Your task to perform on an android device: turn notification dots on Image 0: 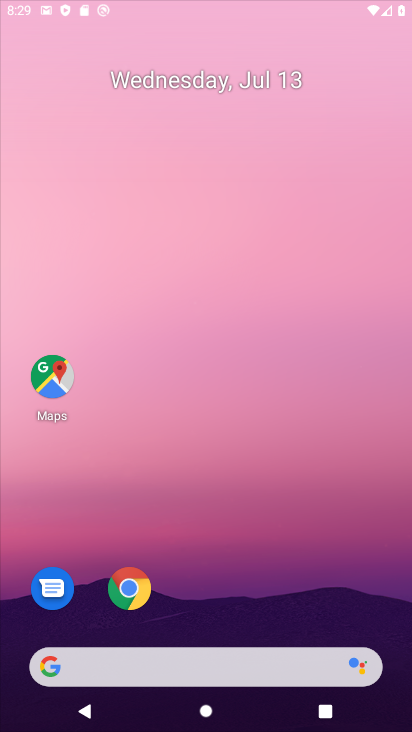
Step 0: click (343, 256)
Your task to perform on an android device: turn notification dots on Image 1: 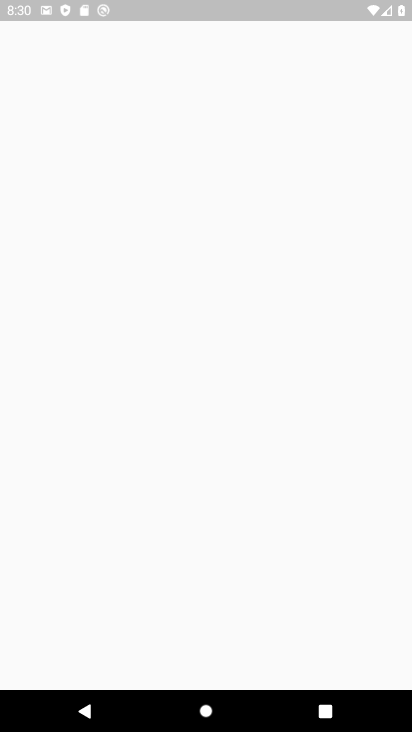
Step 1: drag from (205, 604) to (224, 400)
Your task to perform on an android device: turn notification dots on Image 2: 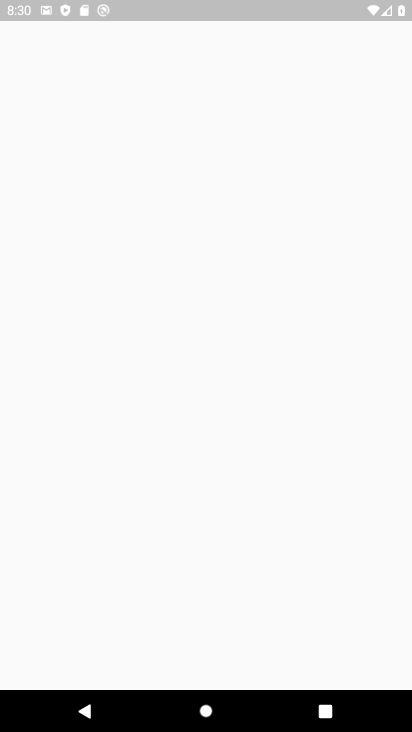
Step 2: press home button
Your task to perform on an android device: turn notification dots on Image 3: 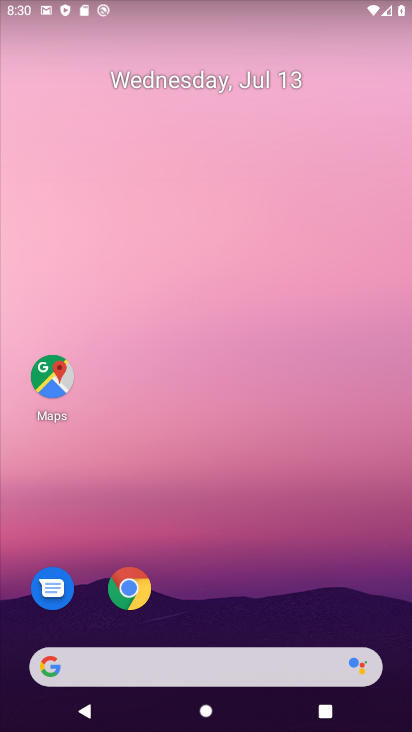
Step 3: drag from (196, 642) to (289, 74)
Your task to perform on an android device: turn notification dots on Image 4: 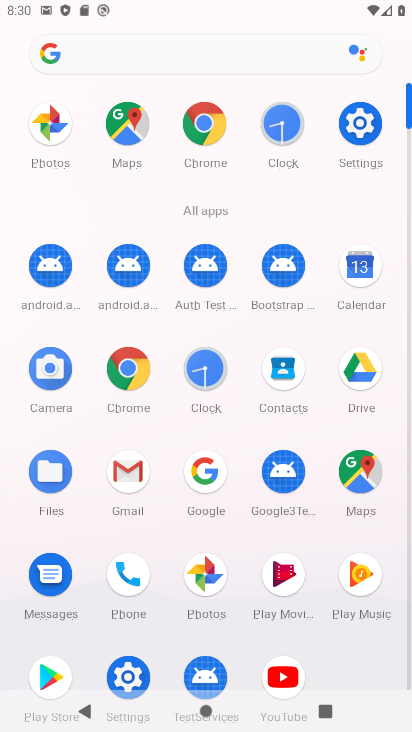
Step 4: click (368, 120)
Your task to perform on an android device: turn notification dots on Image 5: 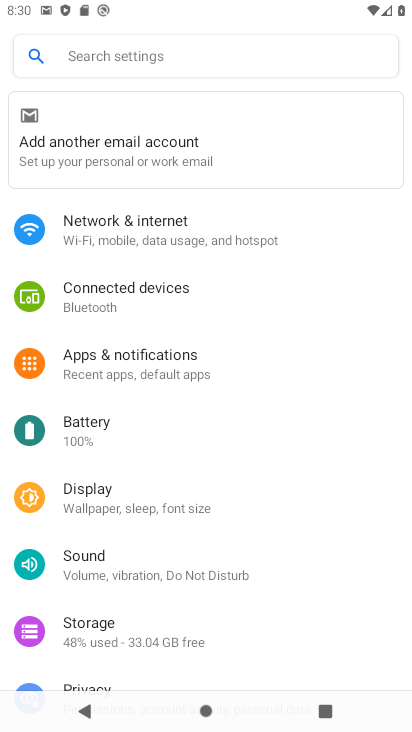
Step 5: click (208, 47)
Your task to perform on an android device: turn notification dots on Image 6: 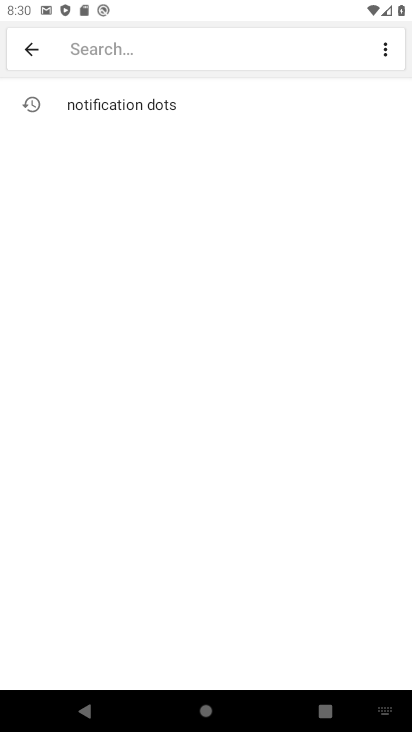
Step 6: click (160, 96)
Your task to perform on an android device: turn notification dots on Image 7: 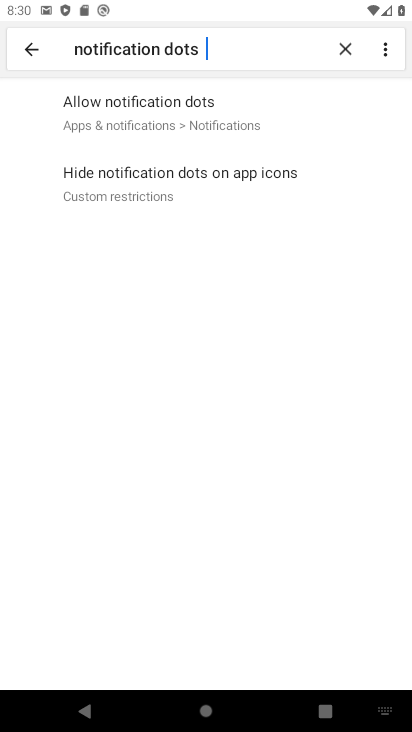
Step 7: click (160, 96)
Your task to perform on an android device: turn notification dots on Image 8: 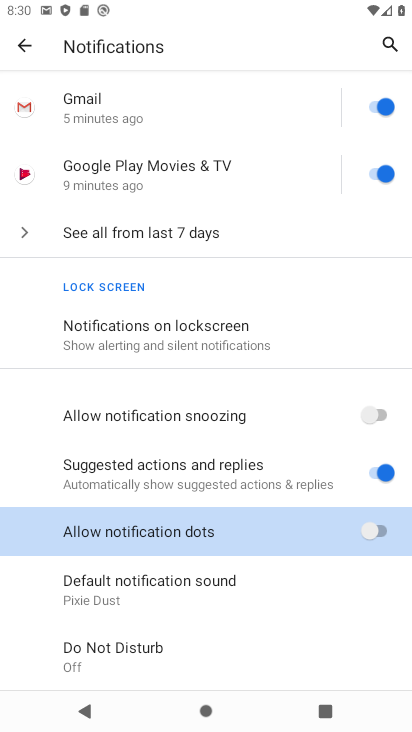
Step 8: click (379, 534)
Your task to perform on an android device: turn notification dots on Image 9: 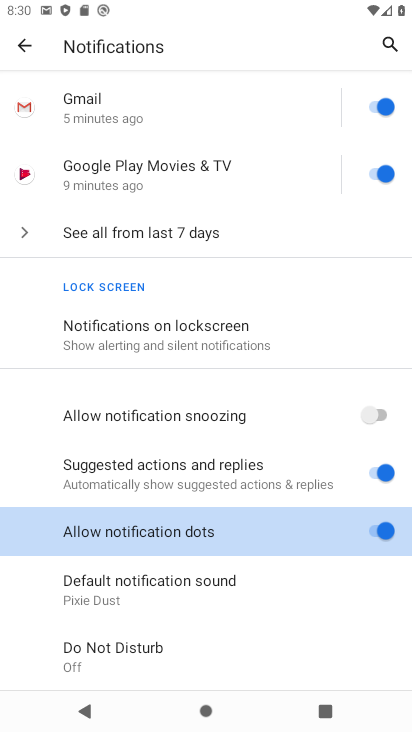
Step 9: task complete